Your task to perform on an android device: show emergency info Image 0: 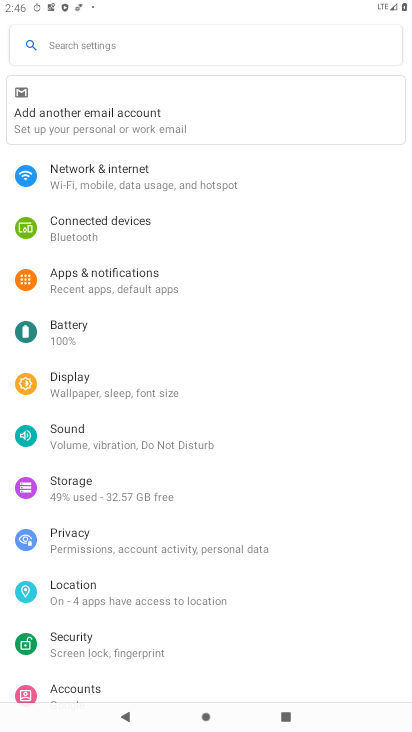
Step 0: drag from (293, 667) to (236, 278)
Your task to perform on an android device: show emergency info Image 1: 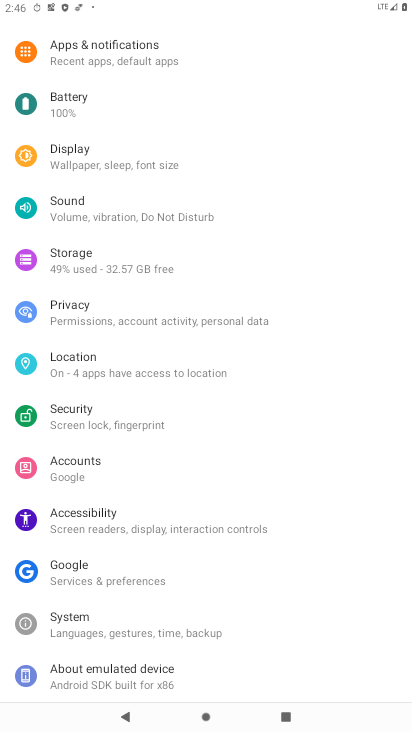
Step 1: click (104, 664)
Your task to perform on an android device: show emergency info Image 2: 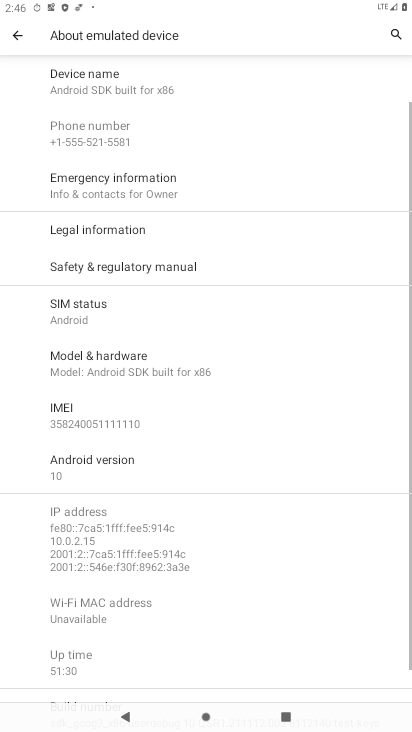
Step 2: click (127, 194)
Your task to perform on an android device: show emergency info Image 3: 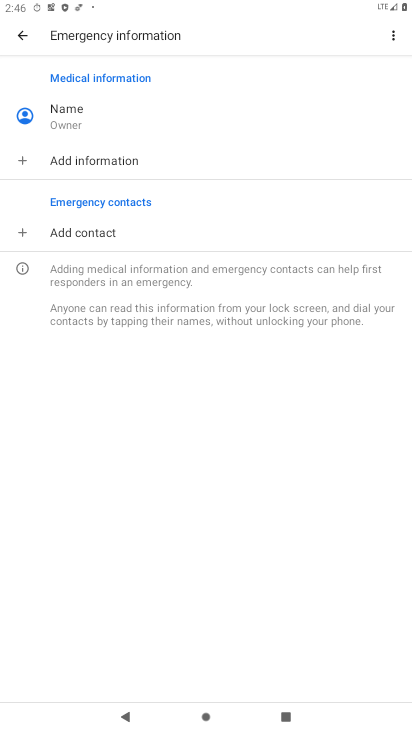
Step 3: task complete